Your task to perform on an android device: Open Reddit.com Image 0: 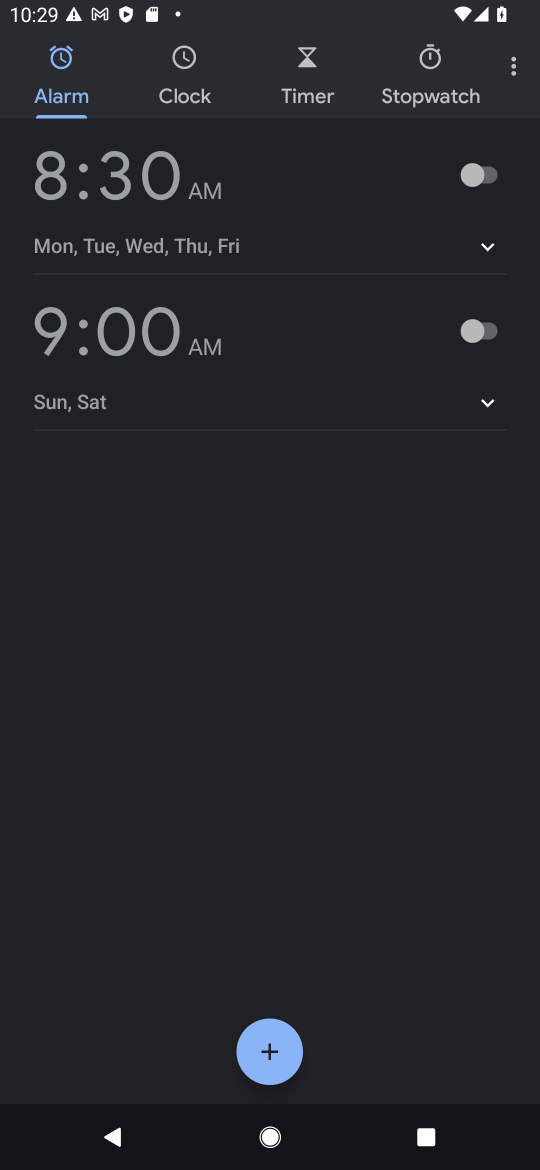
Step 0: press home button
Your task to perform on an android device: Open Reddit.com Image 1: 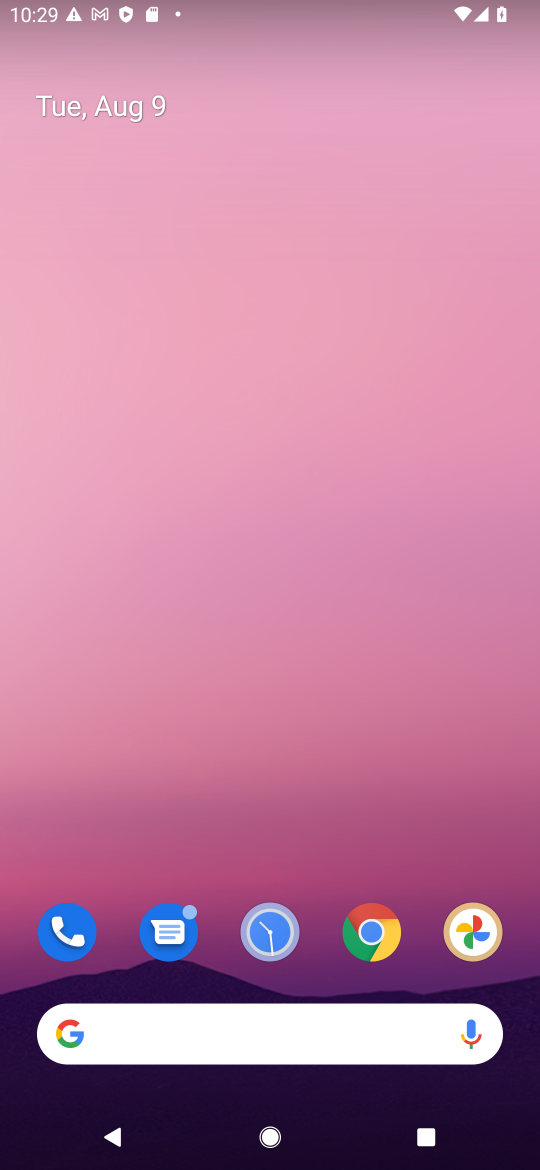
Step 1: drag from (287, 993) to (181, 20)
Your task to perform on an android device: Open Reddit.com Image 2: 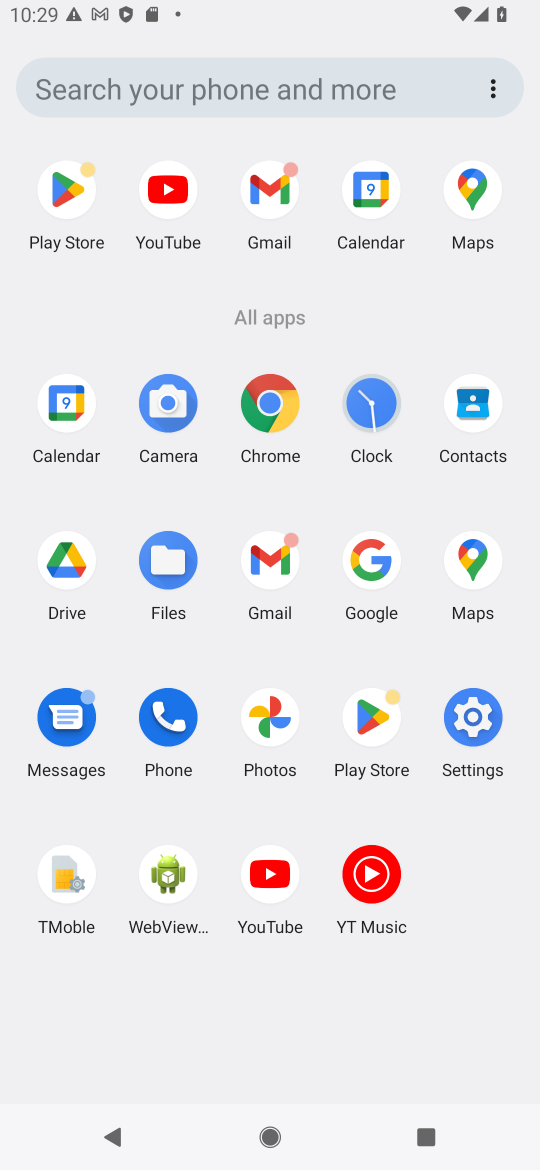
Step 2: click (270, 419)
Your task to perform on an android device: Open Reddit.com Image 3: 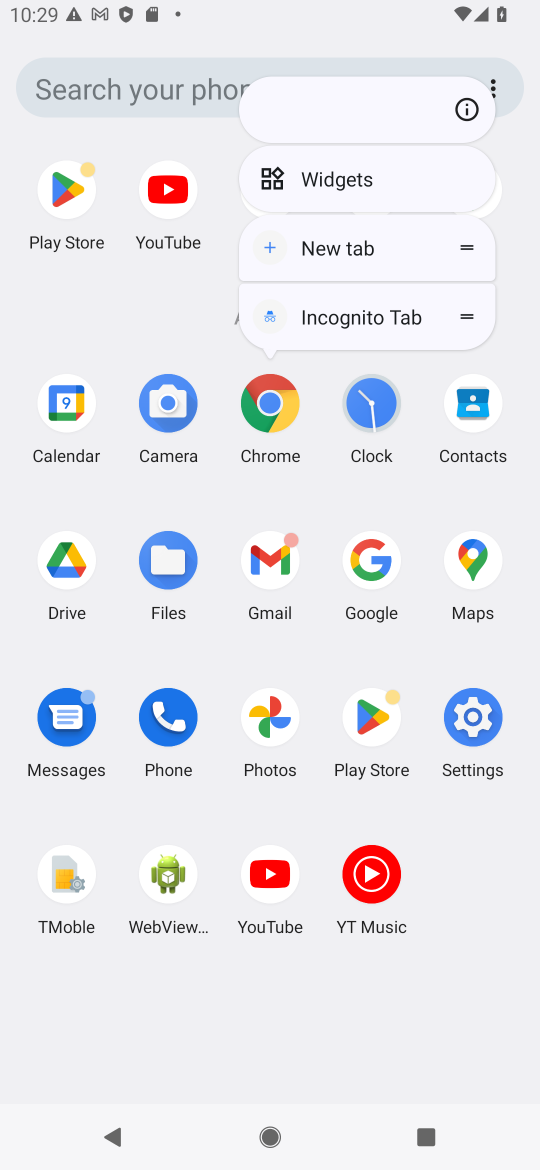
Step 3: click (270, 421)
Your task to perform on an android device: Open Reddit.com Image 4: 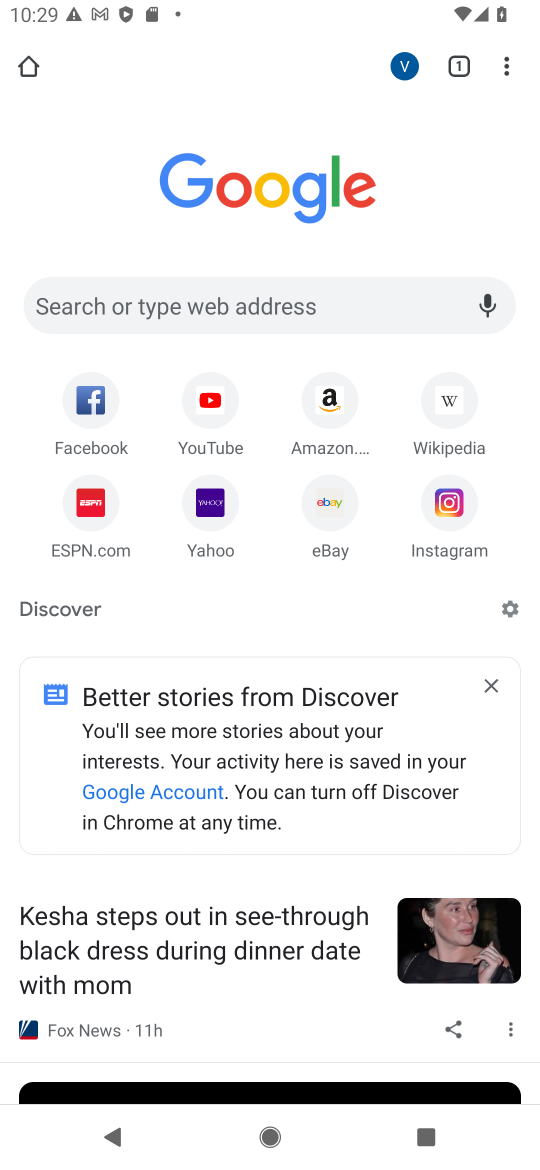
Step 4: click (266, 304)
Your task to perform on an android device: Open Reddit.com Image 5: 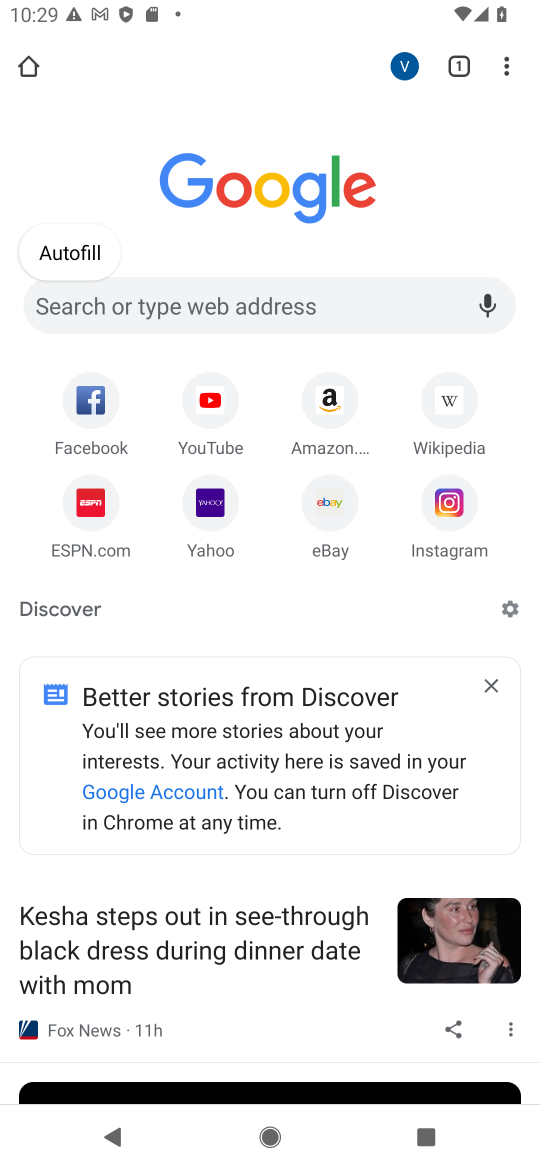
Step 5: type "Reddit.com"
Your task to perform on an android device: Open Reddit.com Image 6: 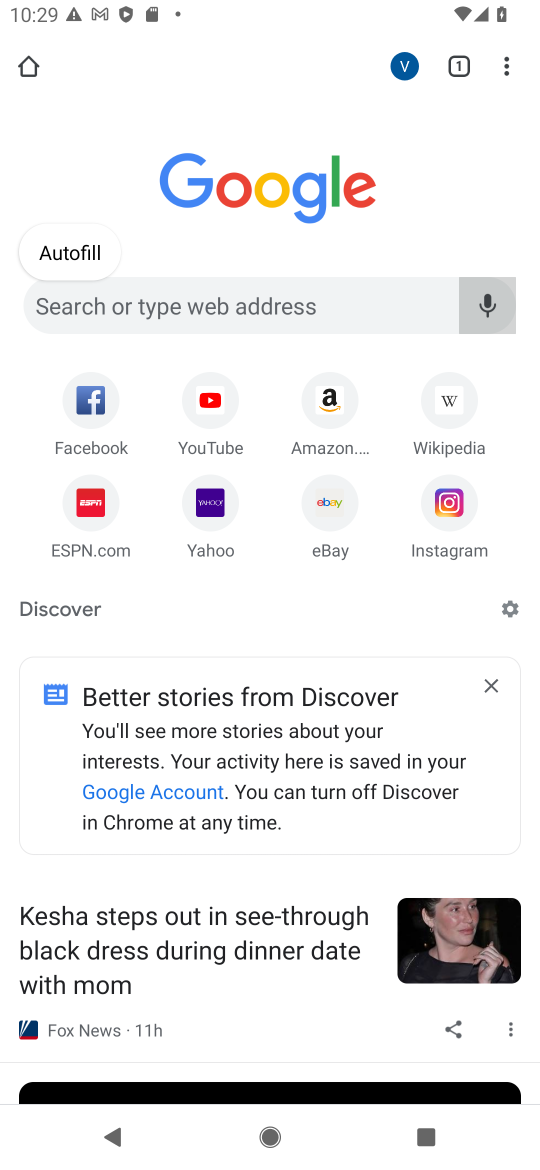
Step 6: click (208, 311)
Your task to perform on an android device: Open Reddit.com Image 7: 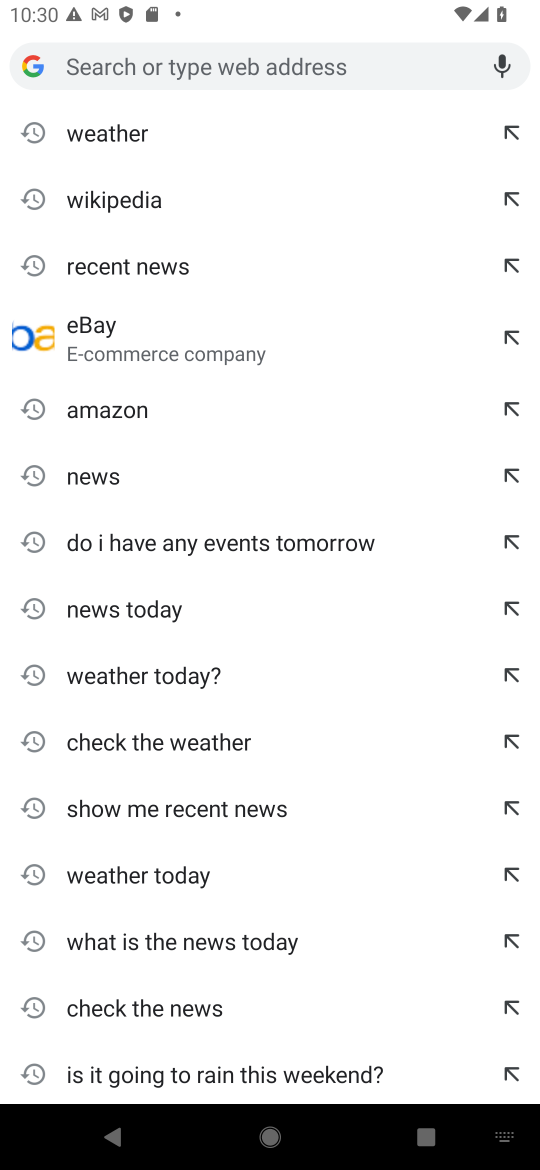
Step 7: type "Reddit.com"
Your task to perform on an android device: Open Reddit.com Image 8: 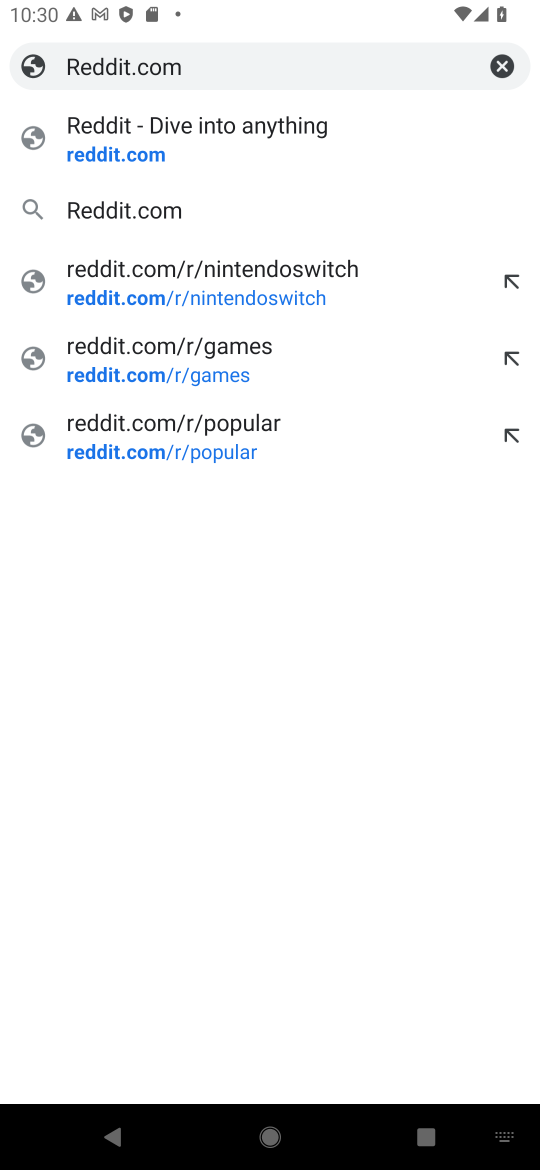
Step 8: click (198, 70)
Your task to perform on an android device: Open Reddit.com Image 9: 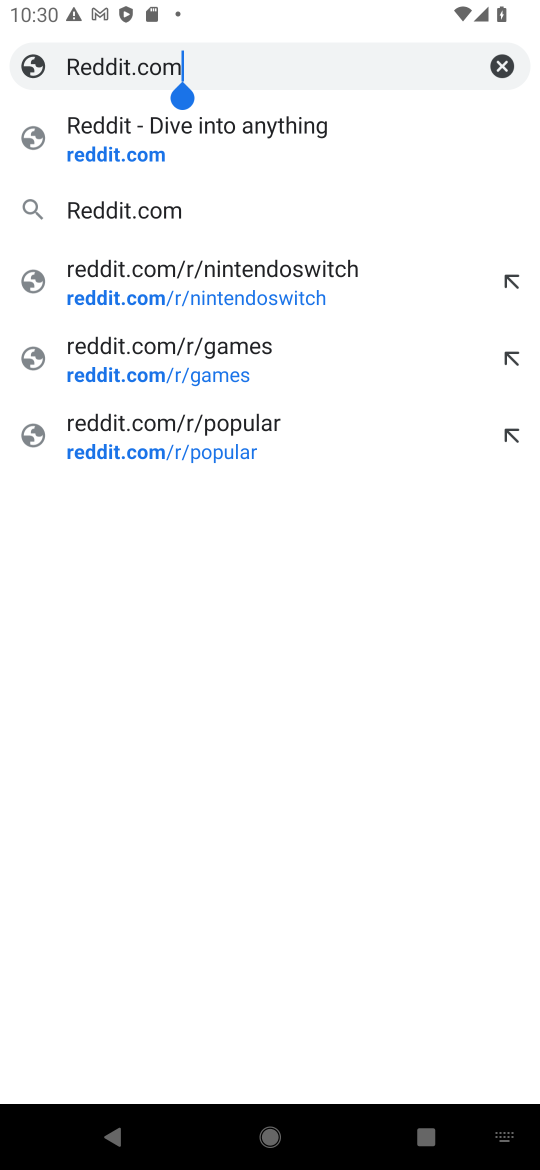
Step 9: click (191, 152)
Your task to perform on an android device: Open Reddit.com Image 10: 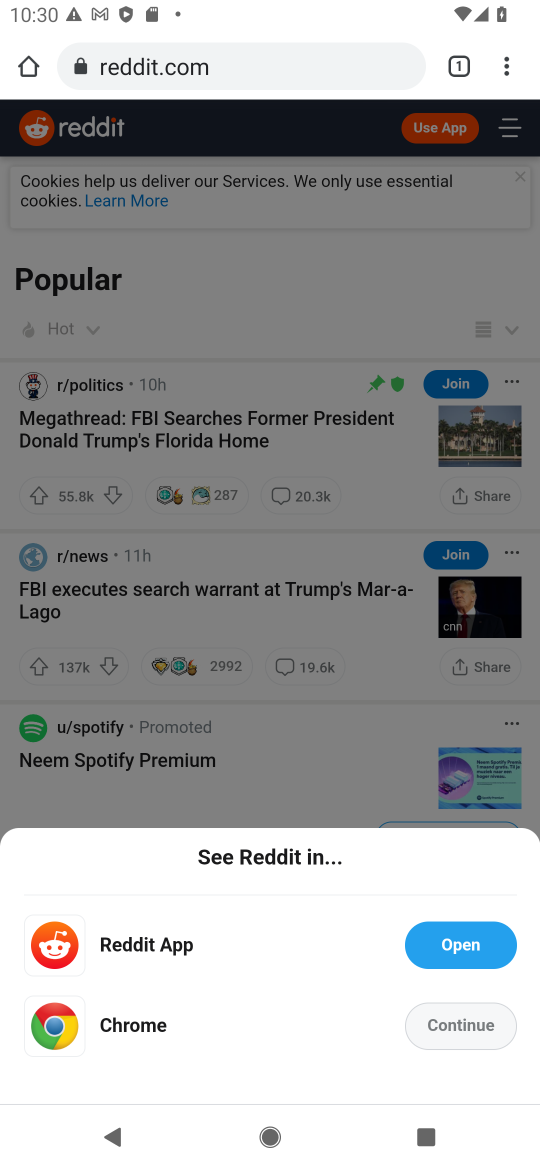
Step 10: task complete